Your task to perform on an android device: set the stopwatch Image 0: 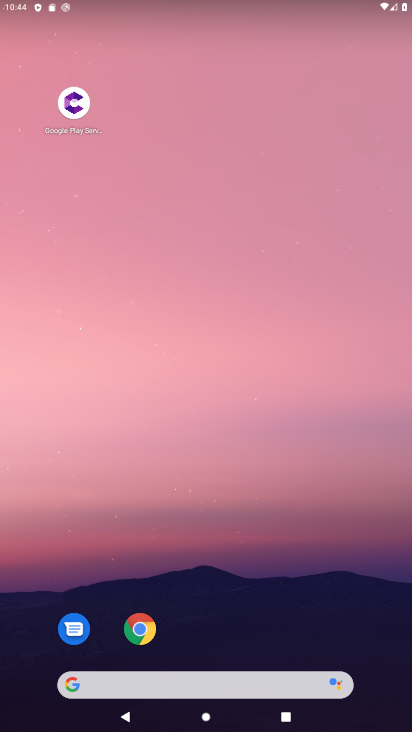
Step 0: drag from (236, 565) to (251, 78)
Your task to perform on an android device: set the stopwatch Image 1: 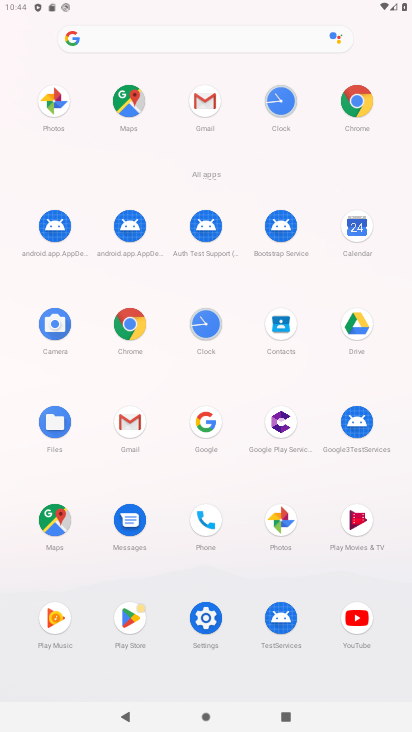
Step 1: click (282, 109)
Your task to perform on an android device: set the stopwatch Image 2: 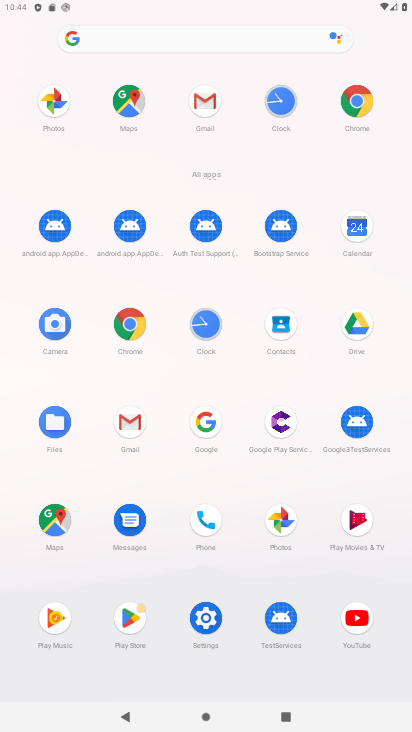
Step 2: click (280, 113)
Your task to perform on an android device: set the stopwatch Image 3: 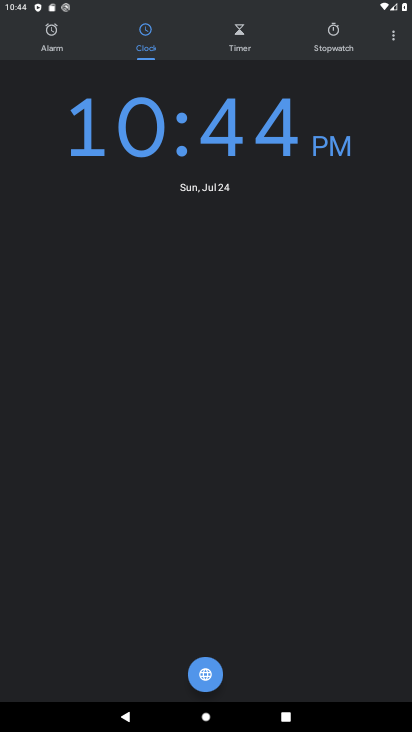
Step 3: click (321, 42)
Your task to perform on an android device: set the stopwatch Image 4: 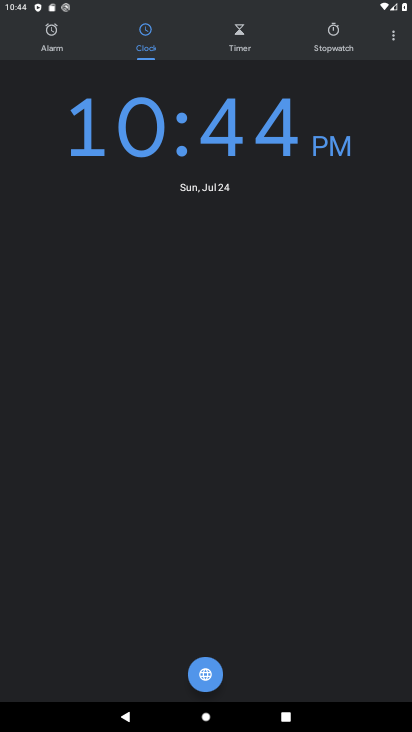
Step 4: click (331, 39)
Your task to perform on an android device: set the stopwatch Image 5: 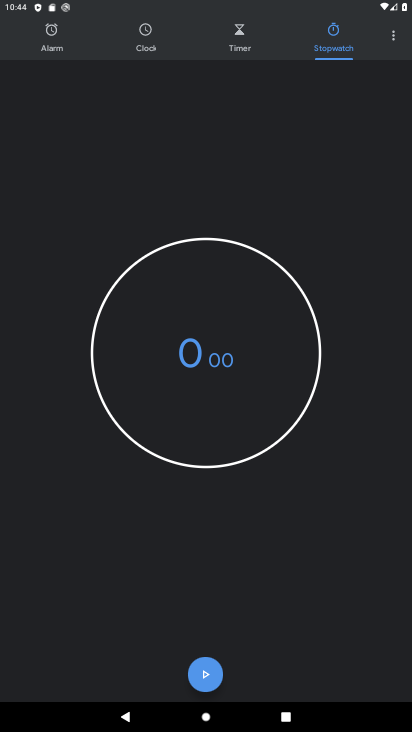
Step 5: click (332, 38)
Your task to perform on an android device: set the stopwatch Image 6: 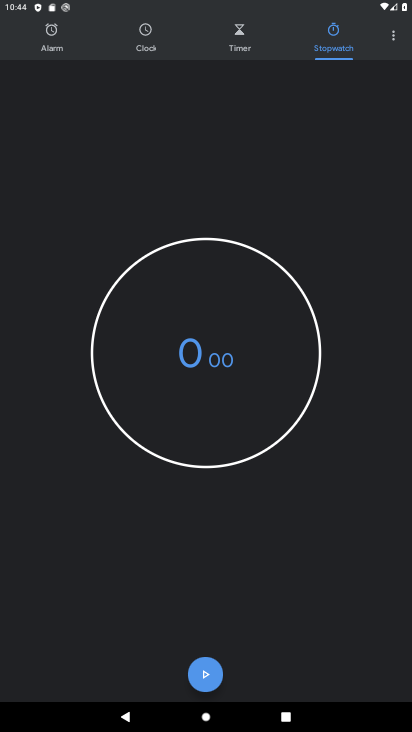
Step 6: click (210, 674)
Your task to perform on an android device: set the stopwatch Image 7: 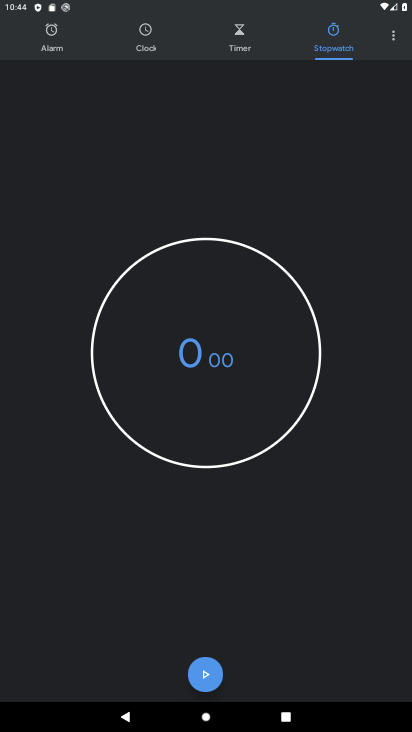
Step 7: click (204, 678)
Your task to perform on an android device: set the stopwatch Image 8: 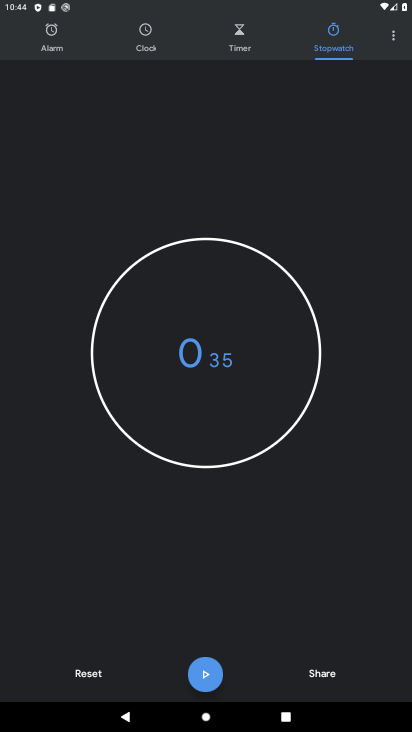
Step 8: click (203, 676)
Your task to perform on an android device: set the stopwatch Image 9: 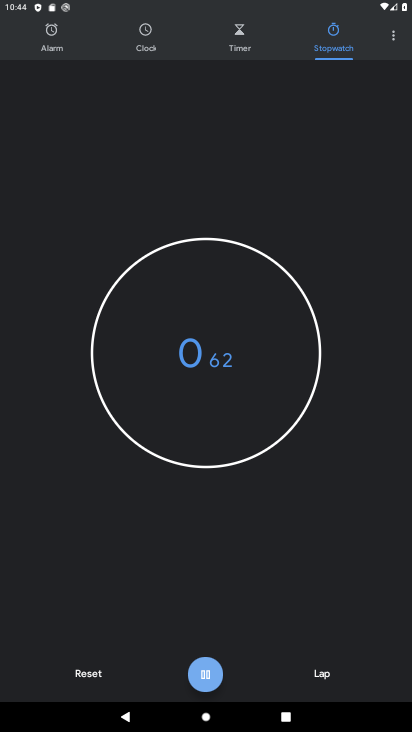
Step 9: click (203, 676)
Your task to perform on an android device: set the stopwatch Image 10: 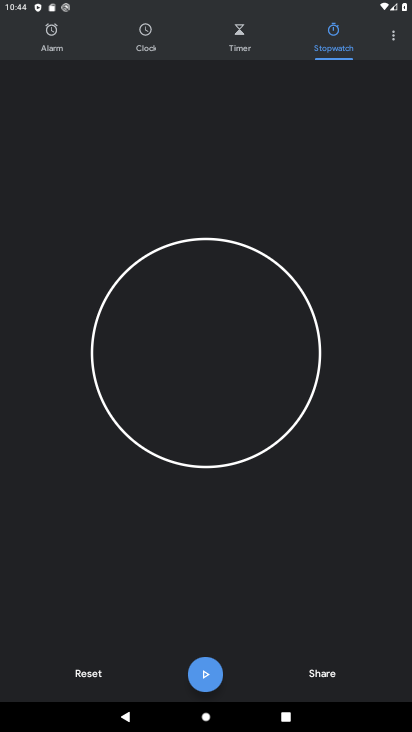
Step 10: click (216, 674)
Your task to perform on an android device: set the stopwatch Image 11: 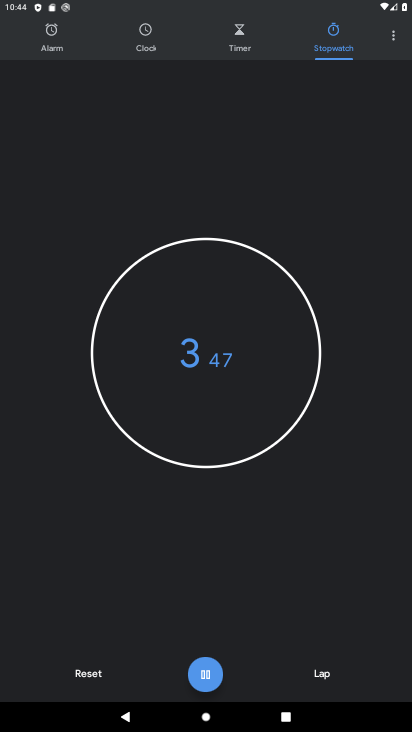
Step 11: click (193, 665)
Your task to perform on an android device: set the stopwatch Image 12: 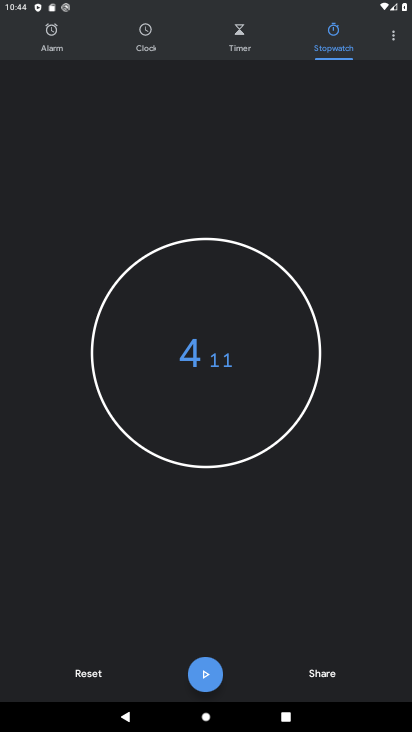
Step 12: click (200, 677)
Your task to perform on an android device: set the stopwatch Image 13: 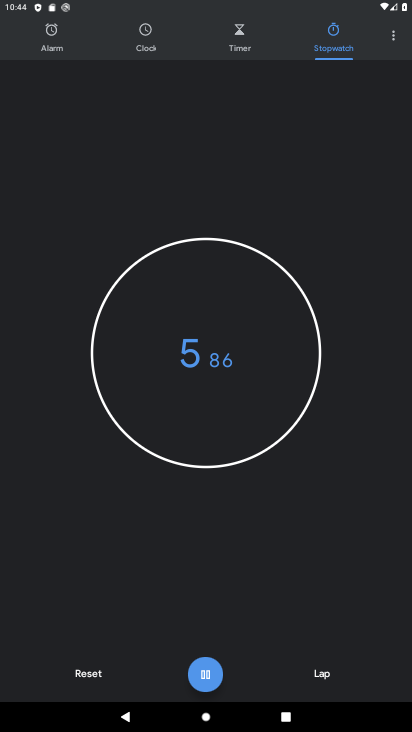
Step 13: click (215, 670)
Your task to perform on an android device: set the stopwatch Image 14: 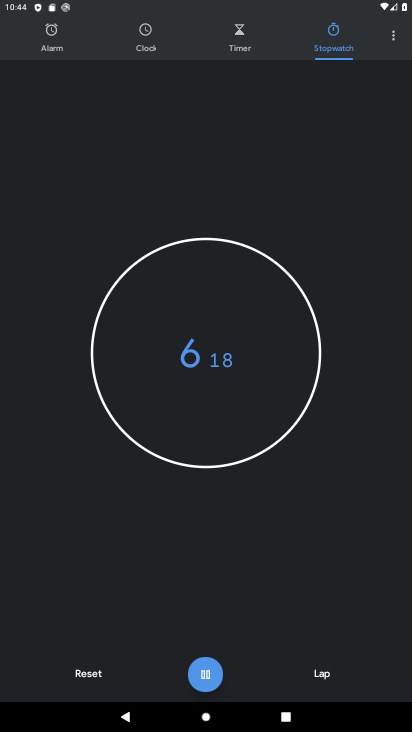
Step 14: click (206, 681)
Your task to perform on an android device: set the stopwatch Image 15: 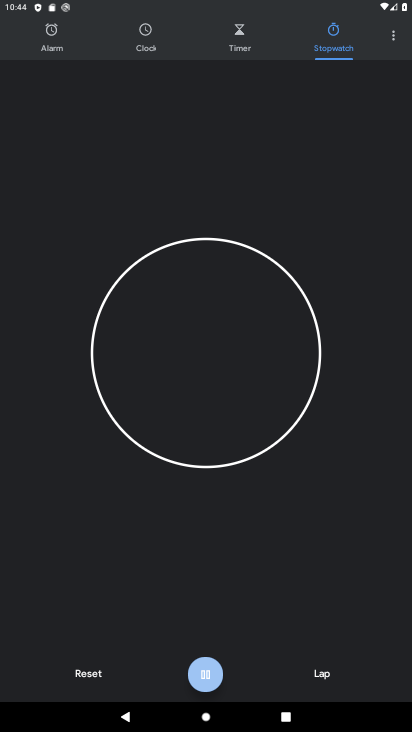
Step 15: click (211, 689)
Your task to perform on an android device: set the stopwatch Image 16: 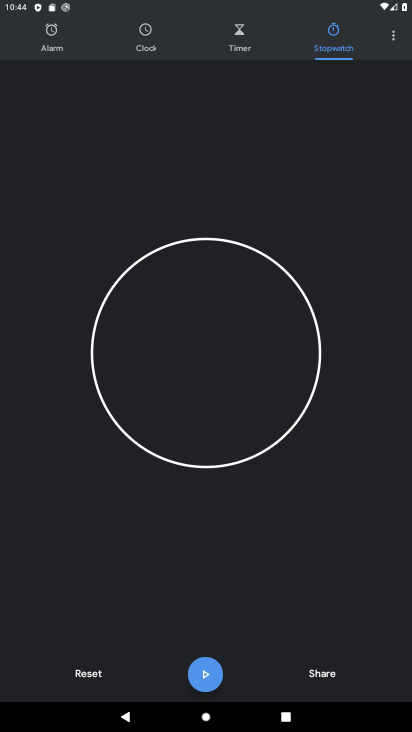
Step 16: task complete